Your task to perform on an android device: Go to Amazon Image 0: 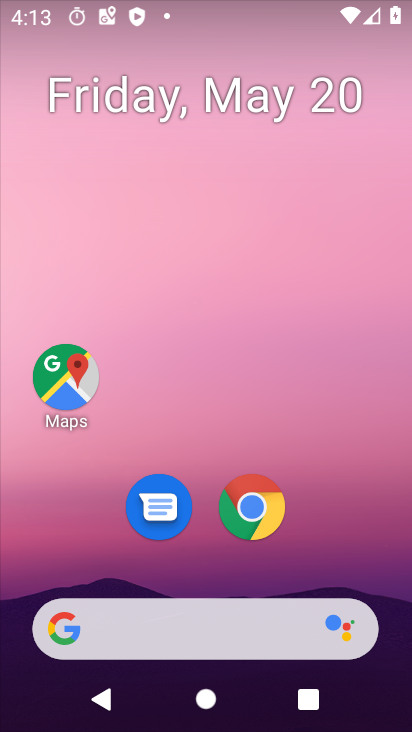
Step 0: click (254, 508)
Your task to perform on an android device: Go to Amazon Image 1: 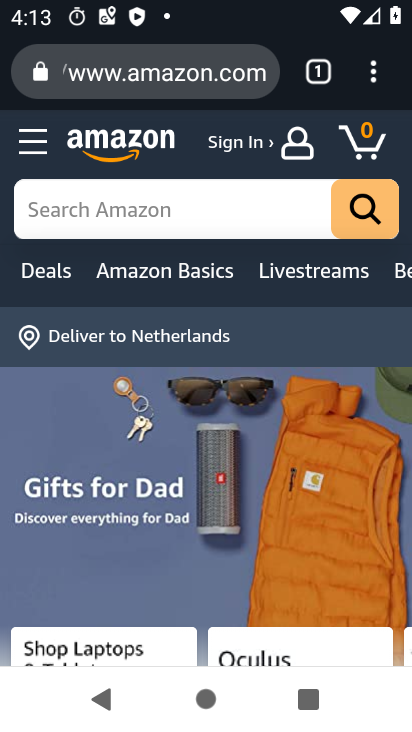
Step 1: click (215, 79)
Your task to perform on an android device: Go to Amazon Image 2: 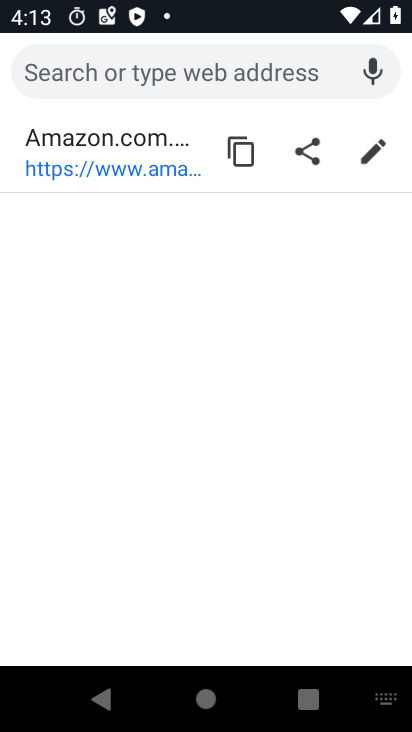
Step 2: click (231, 71)
Your task to perform on an android device: Go to Amazon Image 3: 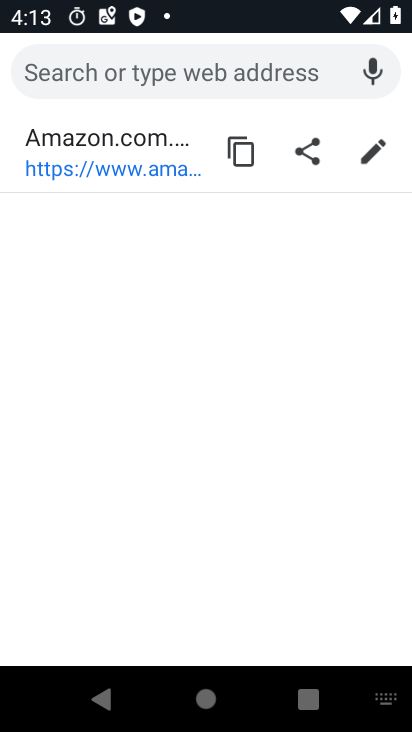
Step 3: type "Amazon"
Your task to perform on an android device: Go to Amazon Image 4: 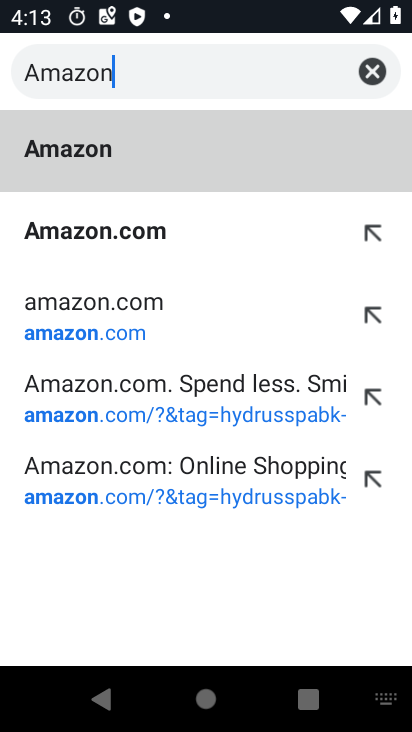
Step 4: click (72, 161)
Your task to perform on an android device: Go to Amazon Image 5: 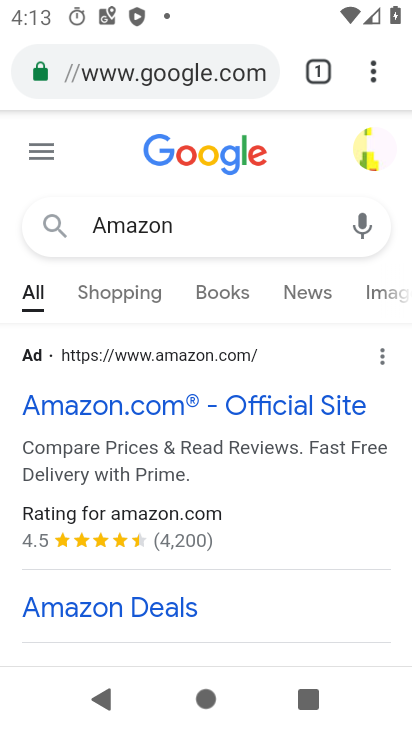
Step 5: drag from (127, 490) to (152, 263)
Your task to perform on an android device: Go to Amazon Image 6: 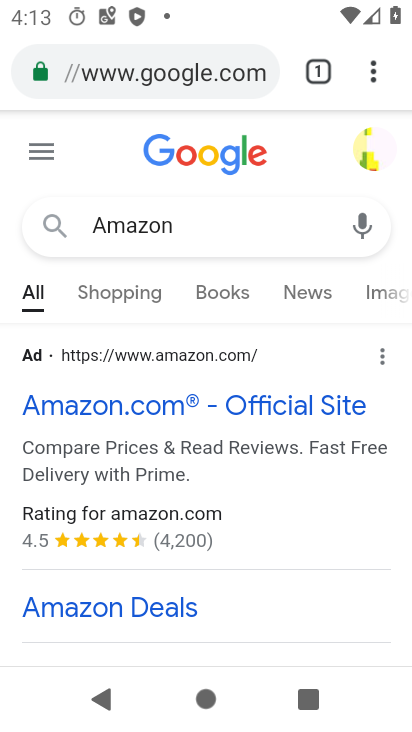
Step 6: click (175, 393)
Your task to perform on an android device: Go to Amazon Image 7: 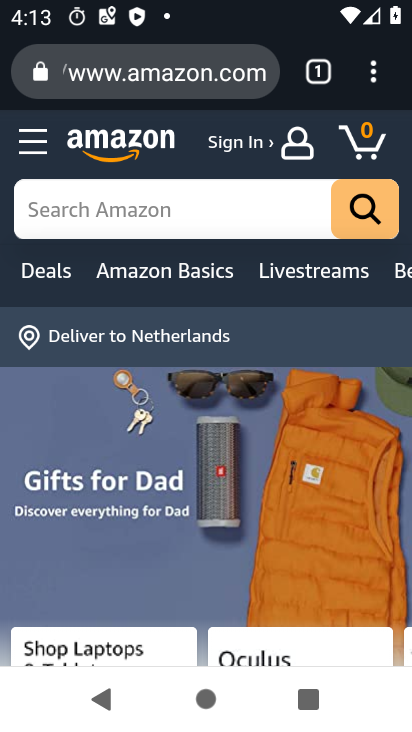
Step 7: task complete